Your task to perform on an android device: turn on wifi Image 0: 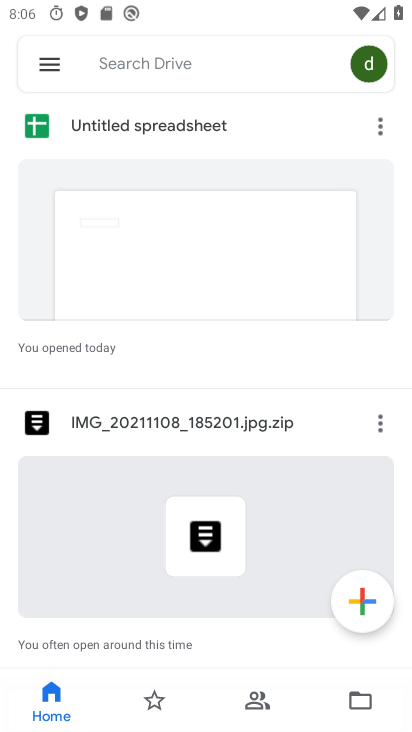
Step 0: press back button
Your task to perform on an android device: turn on wifi Image 1: 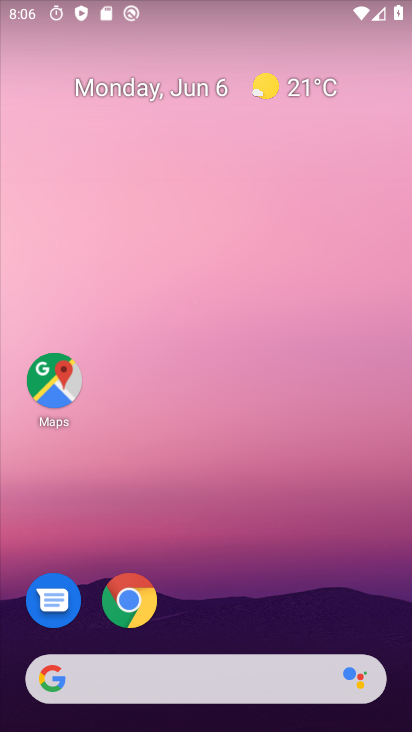
Step 1: drag from (215, 573) to (197, 20)
Your task to perform on an android device: turn on wifi Image 2: 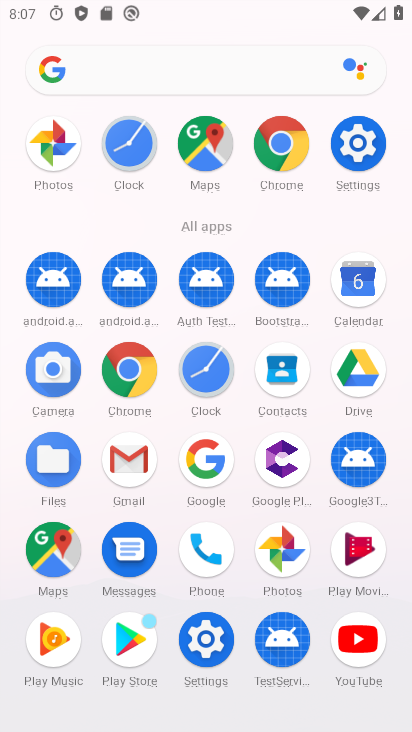
Step 2: drag from (5, 590) to (5, 299)
Your task to perform on an android device: turn on wifi Image 3: 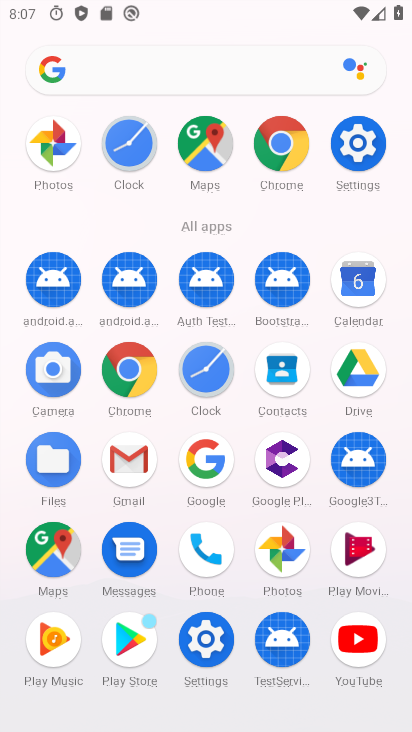
Step 3: click (205, 637)
Your task to perform on an android device: turn on wifi Image 4: 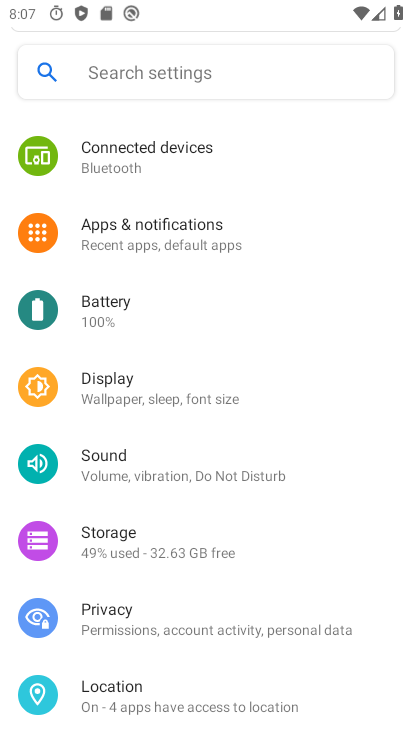
Step 4: drag from (311, 237) to (288, 540)
Your task to perform on an android device: turn on wifi Image 5: 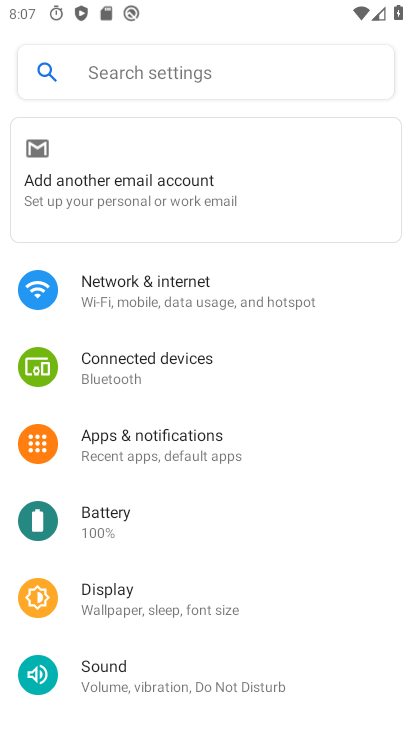
Step 5: click (183, 284)
Your task to perform on an android device: turn on wifi Image 6: 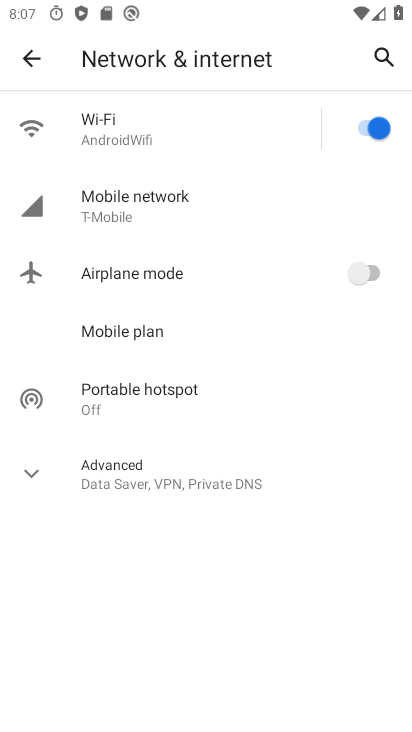
Step 6: click (20, 486)
Your task to perform on an android device: turn on wifi Image 7: 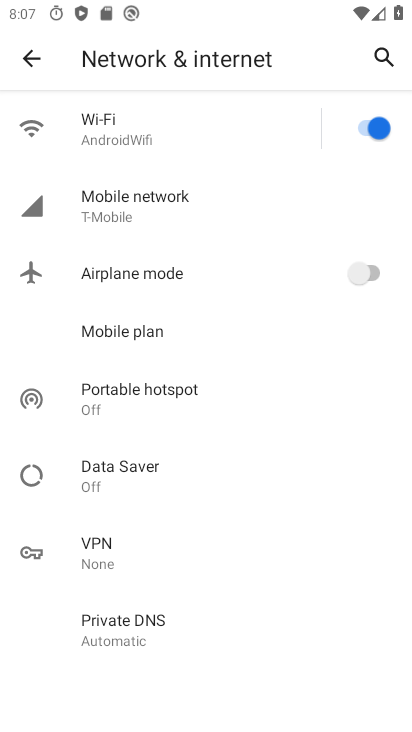
Step 7: task complete